Your task to perform on an android device: Go to Amazon Image 0: 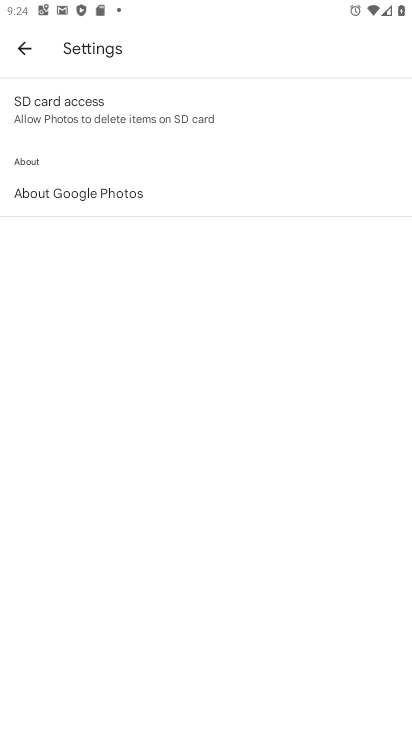
Step 0: press home button
Your task to perform on an android device: Go to Amazon Image 1: 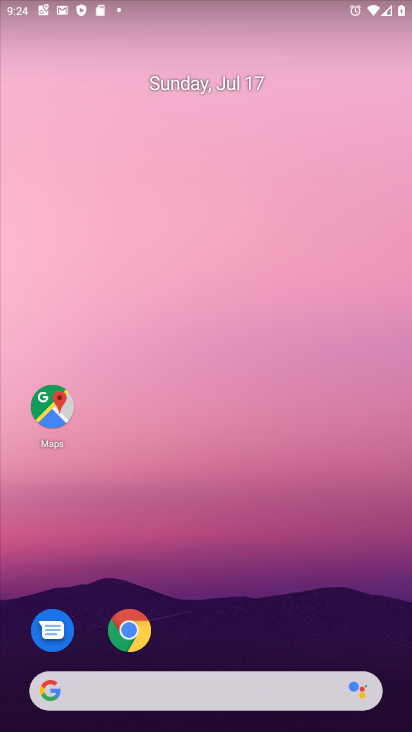
Step 1: drag from (342, 600) to (356, 56)
Your task to perform on an android device: Go to Amazon Image 2: 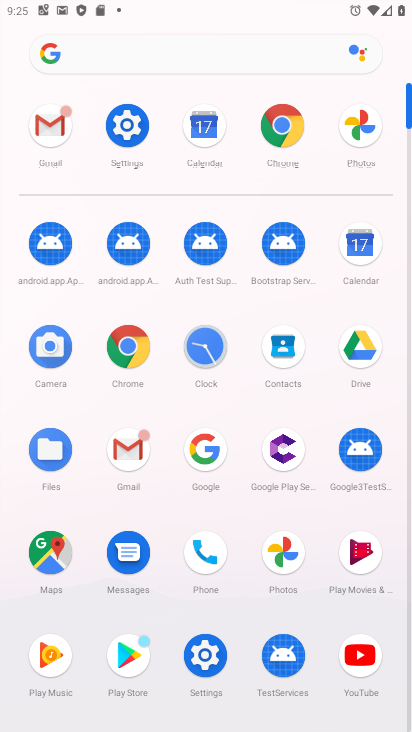
Step 2: click (130, 351)
Your task to perform on an android device: Go to Amazon Image 3: 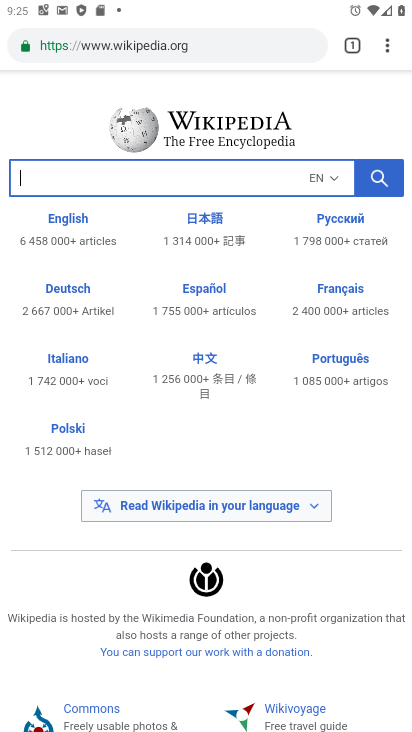
Step 3: click (216, 47)
Your task to perform on an android device: Go to Amazon Image 4: 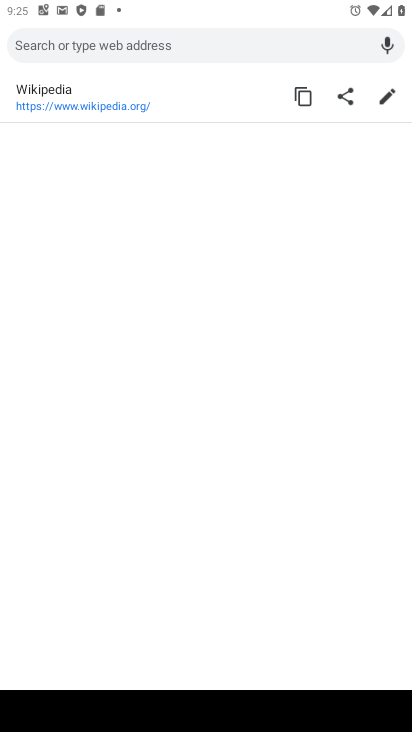
Step 4: type "amazon"
Your task to perform on an android device: Go to Amazon Image 5: 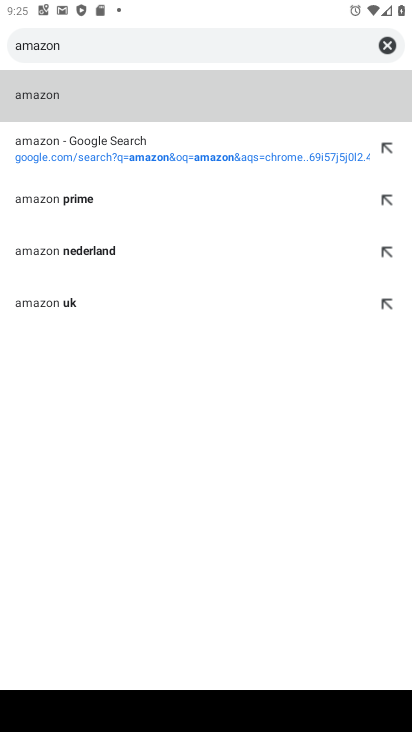
Step 5: click (167, 104)
Your task to perform on an android device: Go to Amazon Image 6: 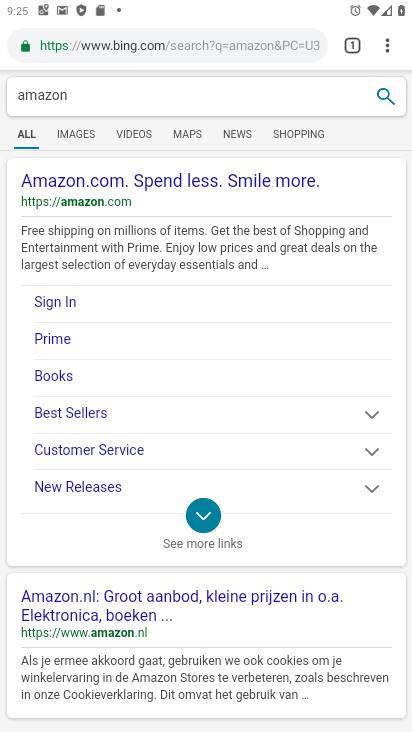
Step 6: task complete